Your task to perform on an android device: What's the weather today? Image 0: 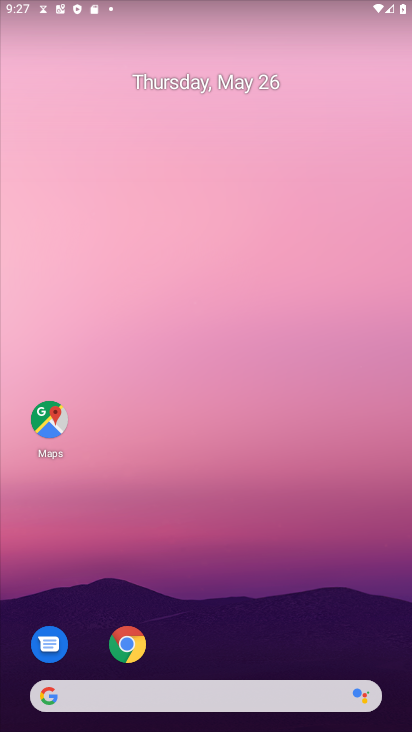
Step 0: click (192, 694)
Your task to perform on an android device: What's the weather today? Image 1: 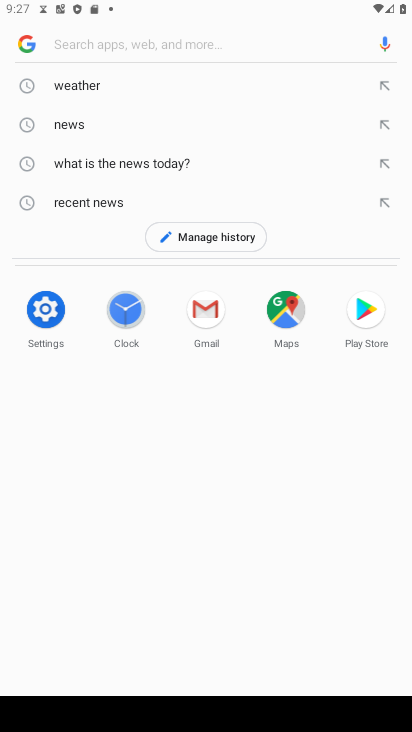
Step 1: click (115, 85)
Your task to perform on an android device: What's the weather today? Image 2: 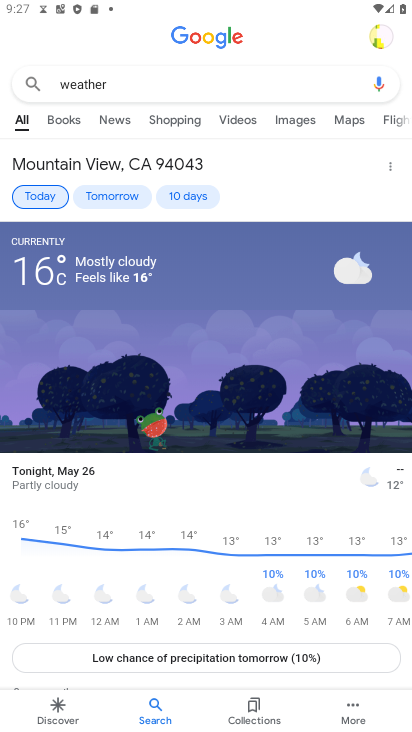
Step 2: task complete